Your task to perform on an android device: Show me the alarms in the clock app Image 0: 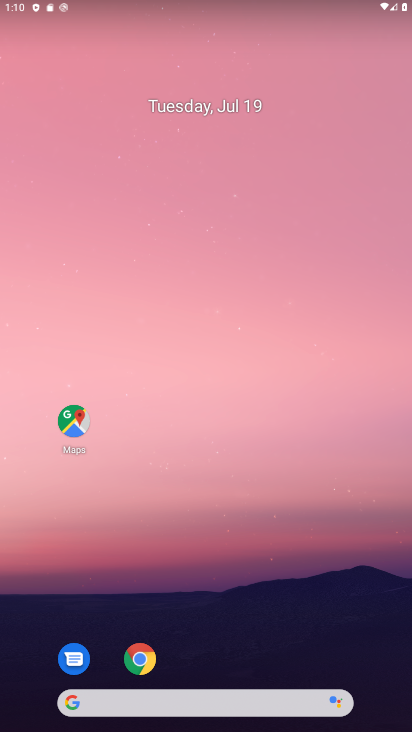
Step 0: press home button
Your task to perform on an android device: Show me the alarms in the clock app Image 1: 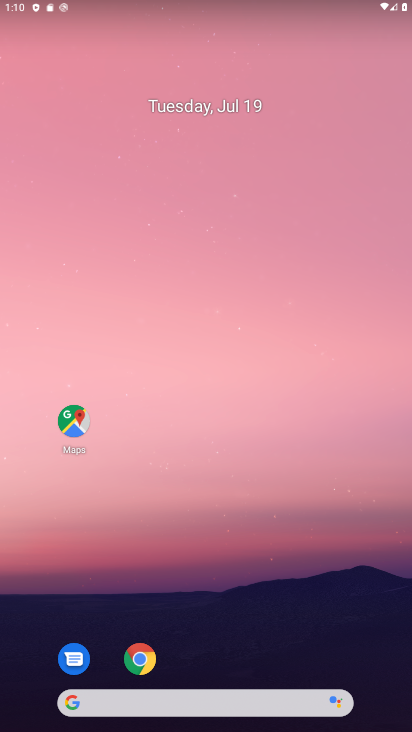
Step 1: drag from (264, 655) to (331, 19)
Your task to perform on an android device: Show me the alarms in the clock app Image 2: 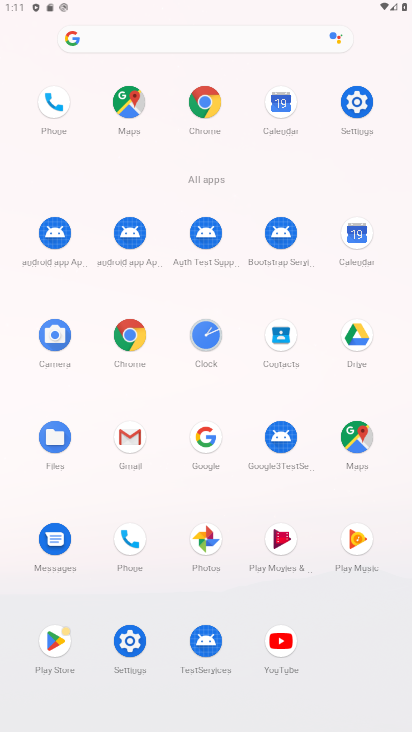
Step 2: click (212, 345)
Your task to perform on an android device: Show me the alarms in the clock app Image 3: 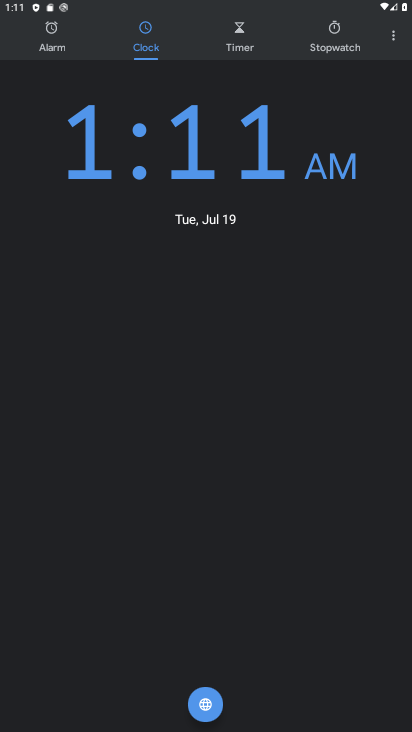
Step 3: click (42, 57)
Your task to perform on an android device: Show me the alarms in the clock app Image 4: 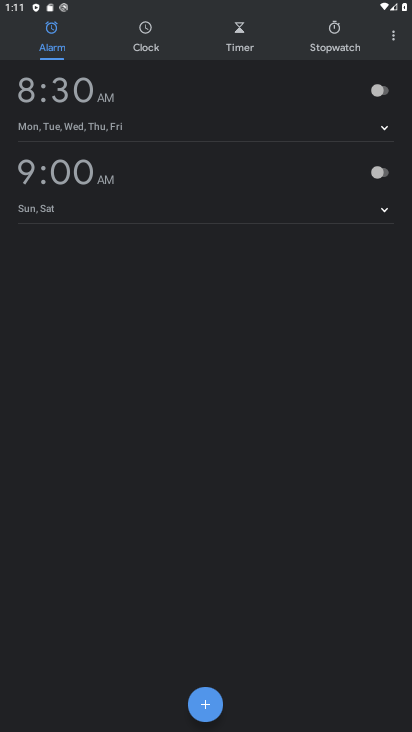
Step 4: task complete